Your task to perform on an android device: allow cookies in the chrome app Image 0: 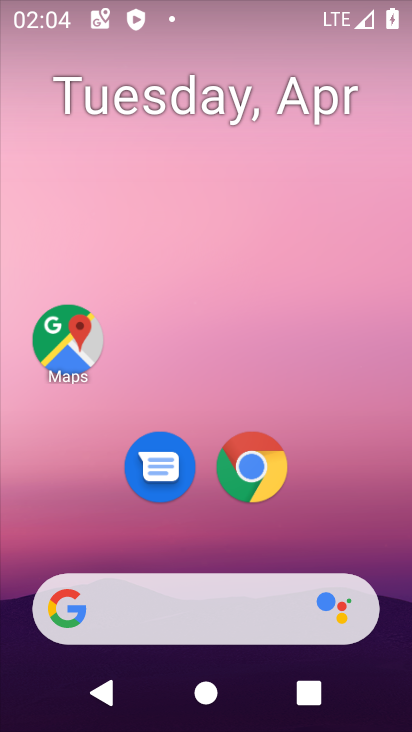
Step 0: drag from (385, 525) to (381, 148)
Your task to perform on an android device: allow cookies in the chrome app Image 1: 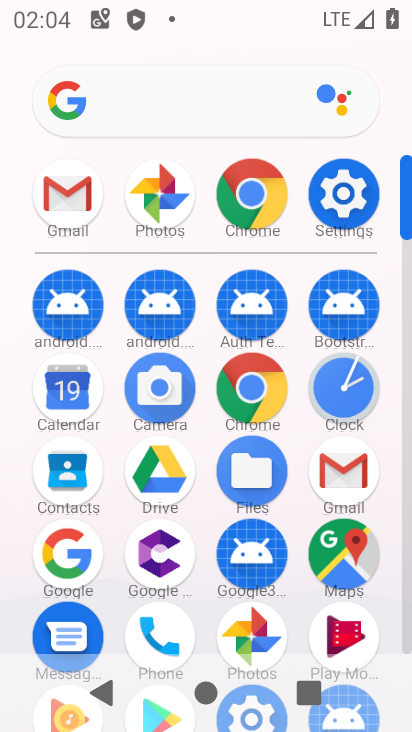
Step 1: click (225, 377)
Your task to perform on an android device: allow cookies in the chrome app Image 2: 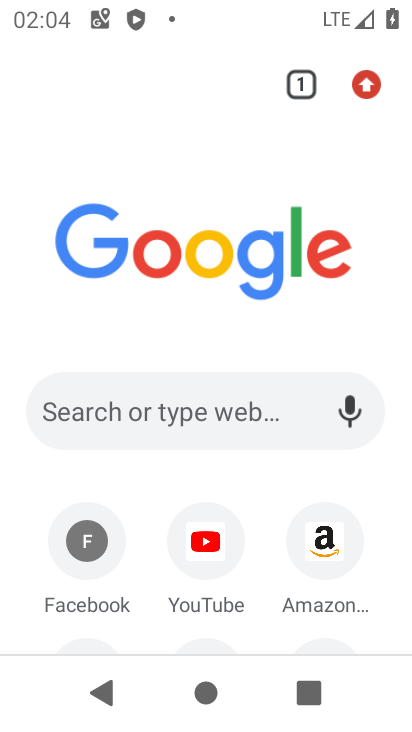
Step 2: click (369, 89)
Your task to perform on an android device: allow cookies in the chrome app Image 3: 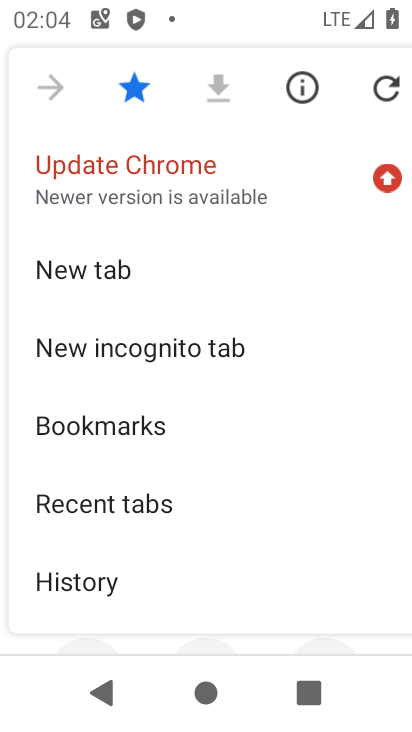
Step 3: drag from (279, 521) to (296, 275)
Your task to perform on an android device: allow cookies in the chrome app Image 4: 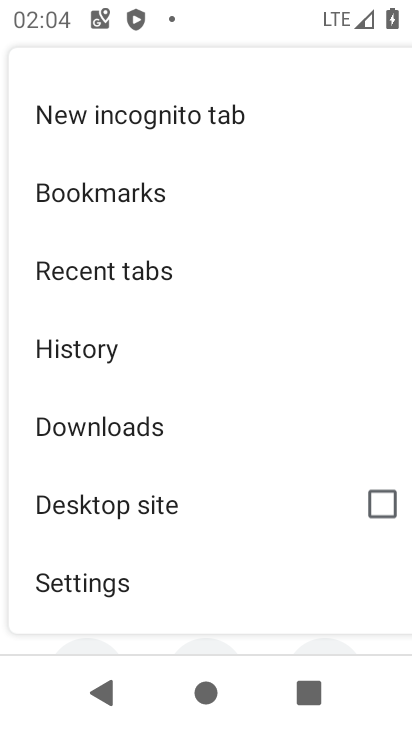
Step 4: drag from (268, 472) to (271, 252)
Your task to perform on an android device: allow cookies in the chrome app Image 5: 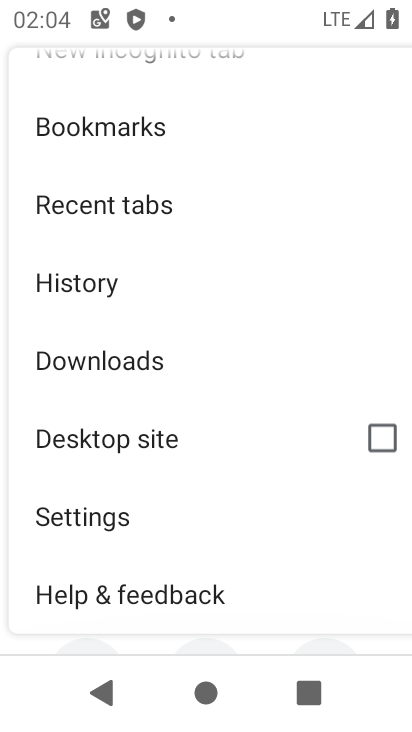
Step 5: click (109, 527)
Your task to perform on an android device: allow cookies in the chrome app Image 6: 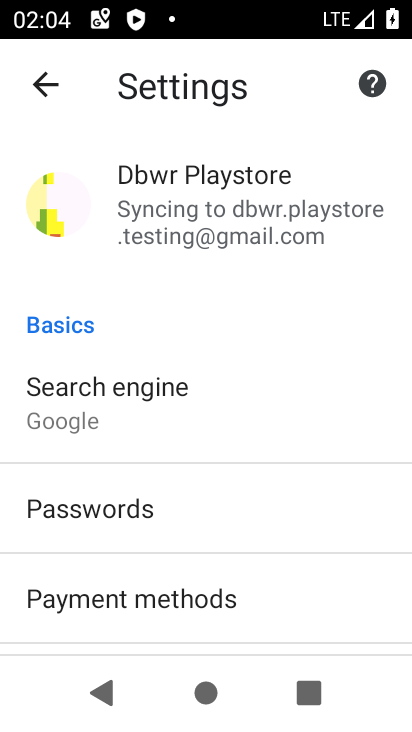
Step 6: drag from (301, 526) to (311, 362)
Your task to perform on an android device: allow cookies in the chrome app Image 7: 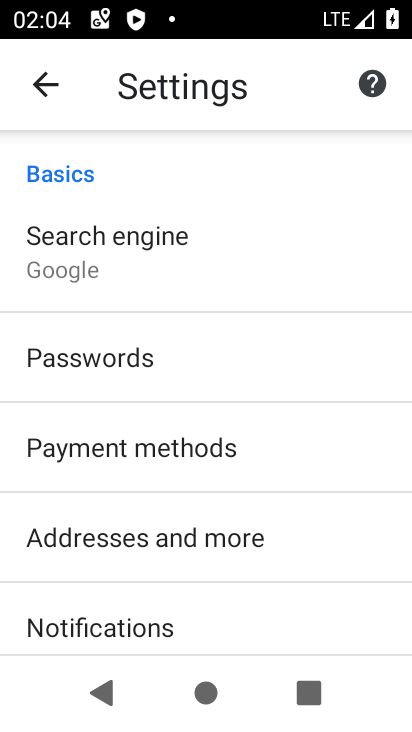
Step 7: drag from (314, 569) to (325, 378)
Your task to perform on an android device: allow cookies in the chrome app Image 8: 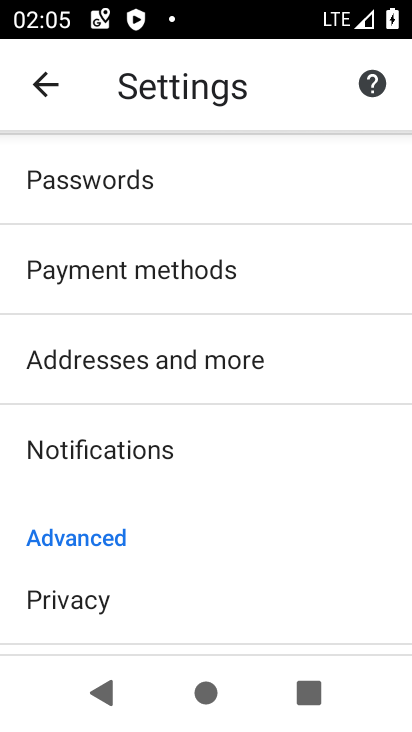
Step 8: drag from (314, 559) to (312, 359)
Your task to perform on an android device: allow cookies in the chrome app Image 9: 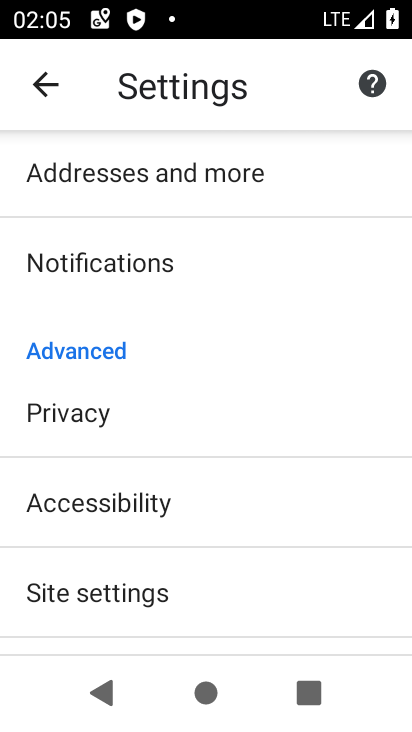
Step 9: drag from (280, 522) to (279, 389)
Your task to perform on an android device: allow cookies in the chrome app Image 10: 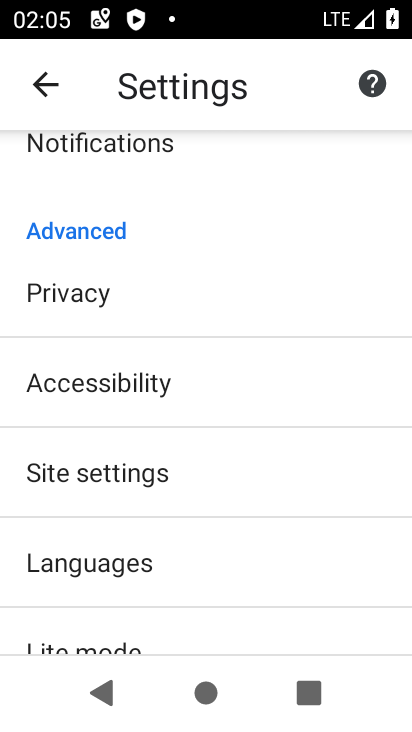
Step 10: click (200, 482)
Your task to perform on an android device: allow cookies in the chrome app Image 11: 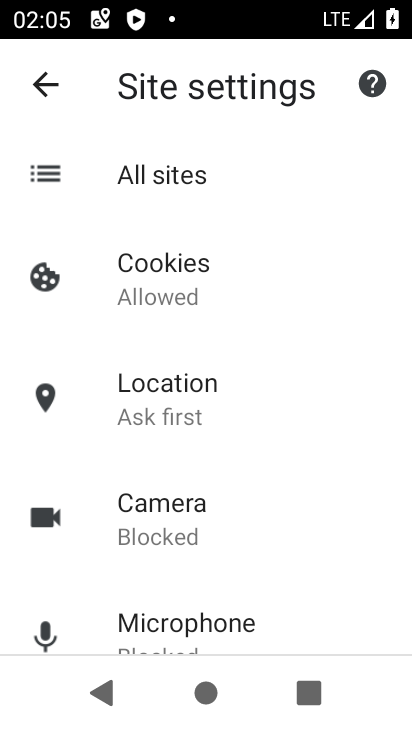
Step 11: click (170, 263)
Your task to perform on an android device: allow cookies in the chrome app Image 12: 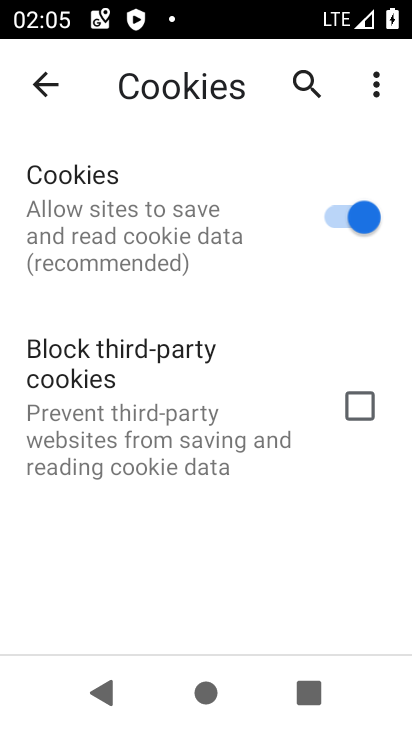
Step 12: task complete